Your task to perform on an android device: make emails show in primary in the gmail app Image 0: 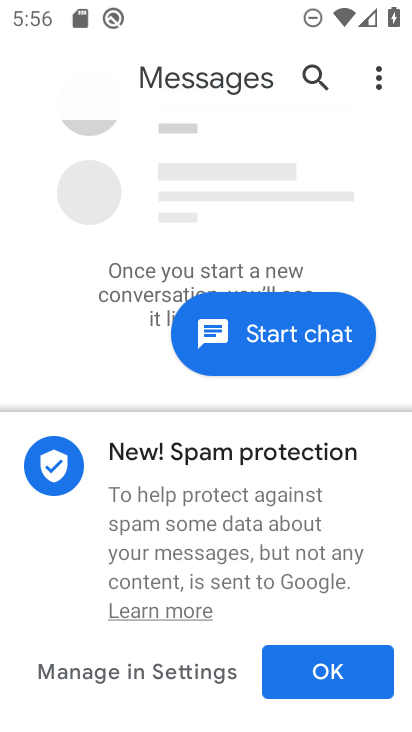
Step 0: press home button
Your task to perform on an android device: make emails show in primary in the gmail app Image 1: 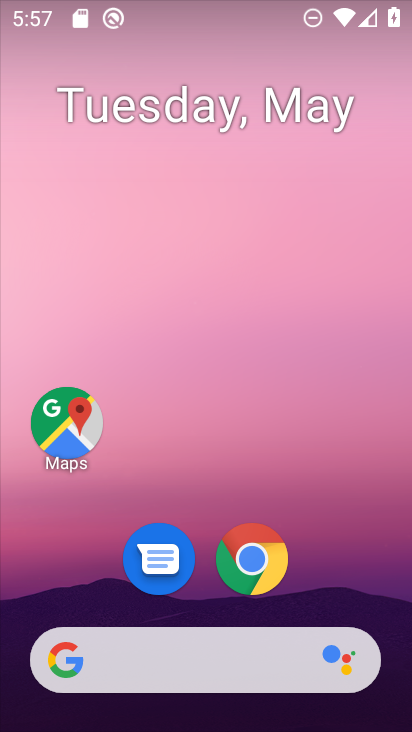
Step 1: drag from (182, 585) to (166, 136)
Your task to perform on an android device: make emails show in primary in the gmail app Image 2: 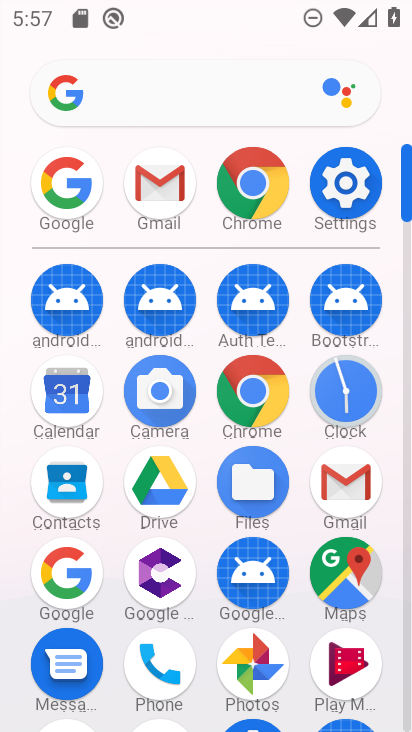
Step 2: click (351, 497)
Your task to perform on an android device: make emails show in primary in the gmail app Image 3: 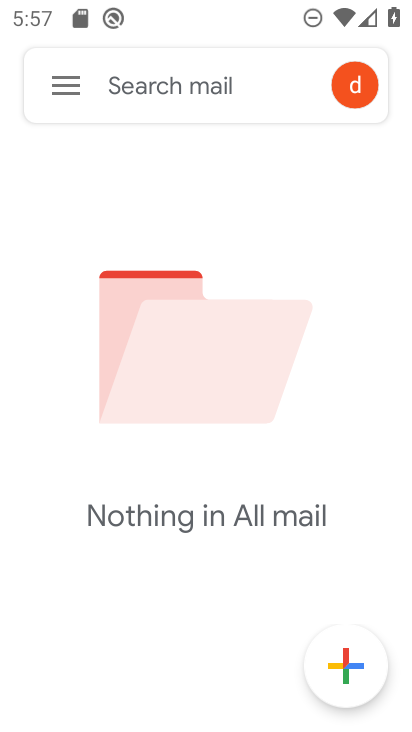
Step 3: click (64, 80)
Your task to perform on an android device: make emails show in primary in the gmail app Image 4: 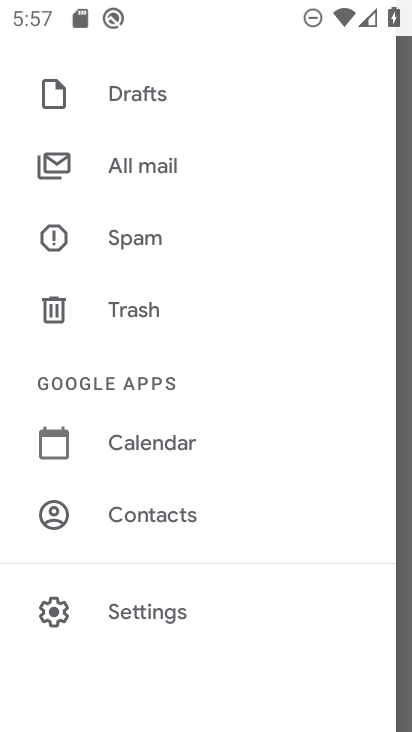
Step 4: click (166, 585)
Your task to perform on an android device: make emails show in primary in the gmail app Image 5: 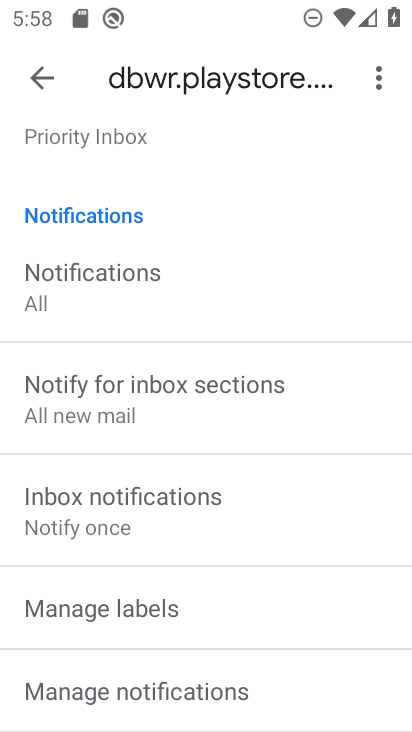
Step 5: task complete